Your task to perform on an android device: Empty the shopping cart on target.com. Add rayovac triple a to the cart on target.com, then select checkout. Image 0: 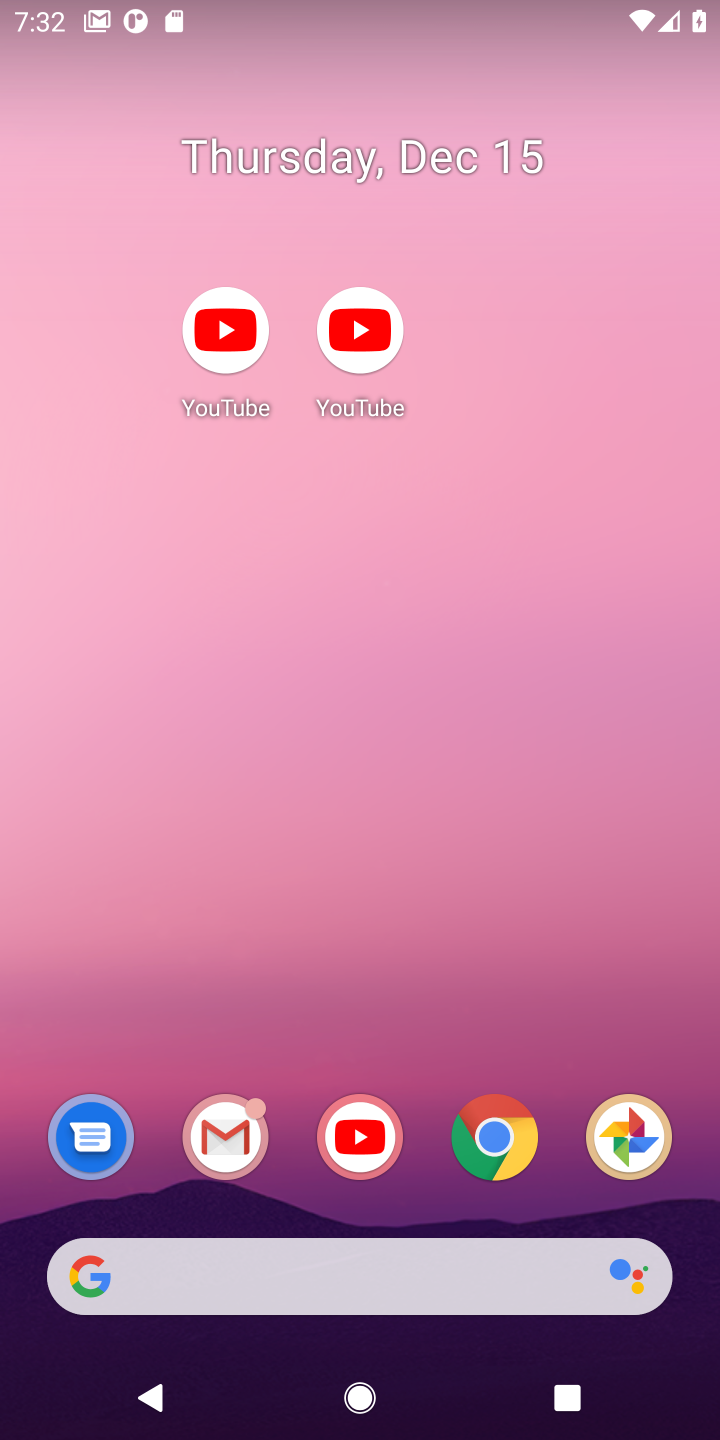
Step 0: drag from (332, 809) to (332, 357)
Your task to perform on an android device: Empty the shopping cart on target.com. Add rayovac triple a to the cart on target.com, then select checkout. Image 1: 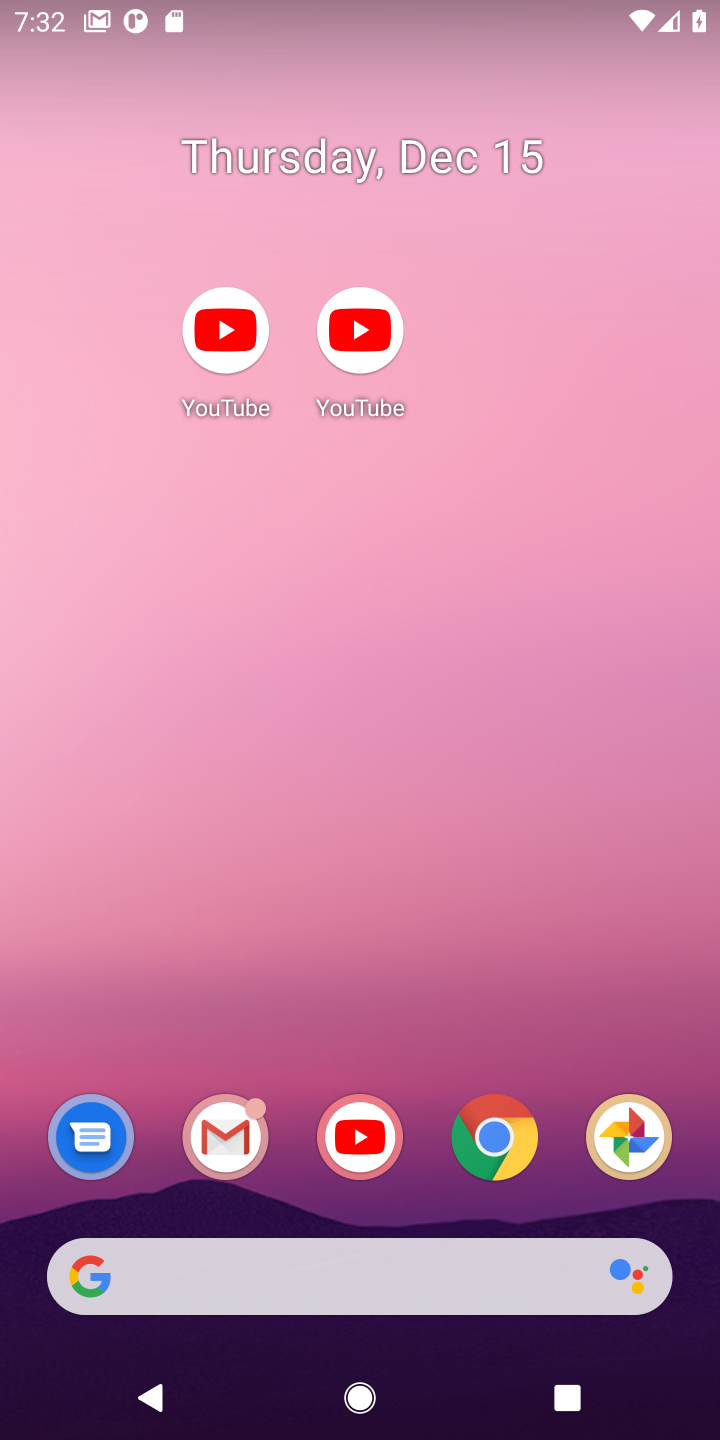
Step 1: drag from (303, 991) to (340, 294)
Your task to perform on an android device: Empty the shopping cart on target.com. Add rayovac triple a to the cart on target.com, then select checkout. Image 2: 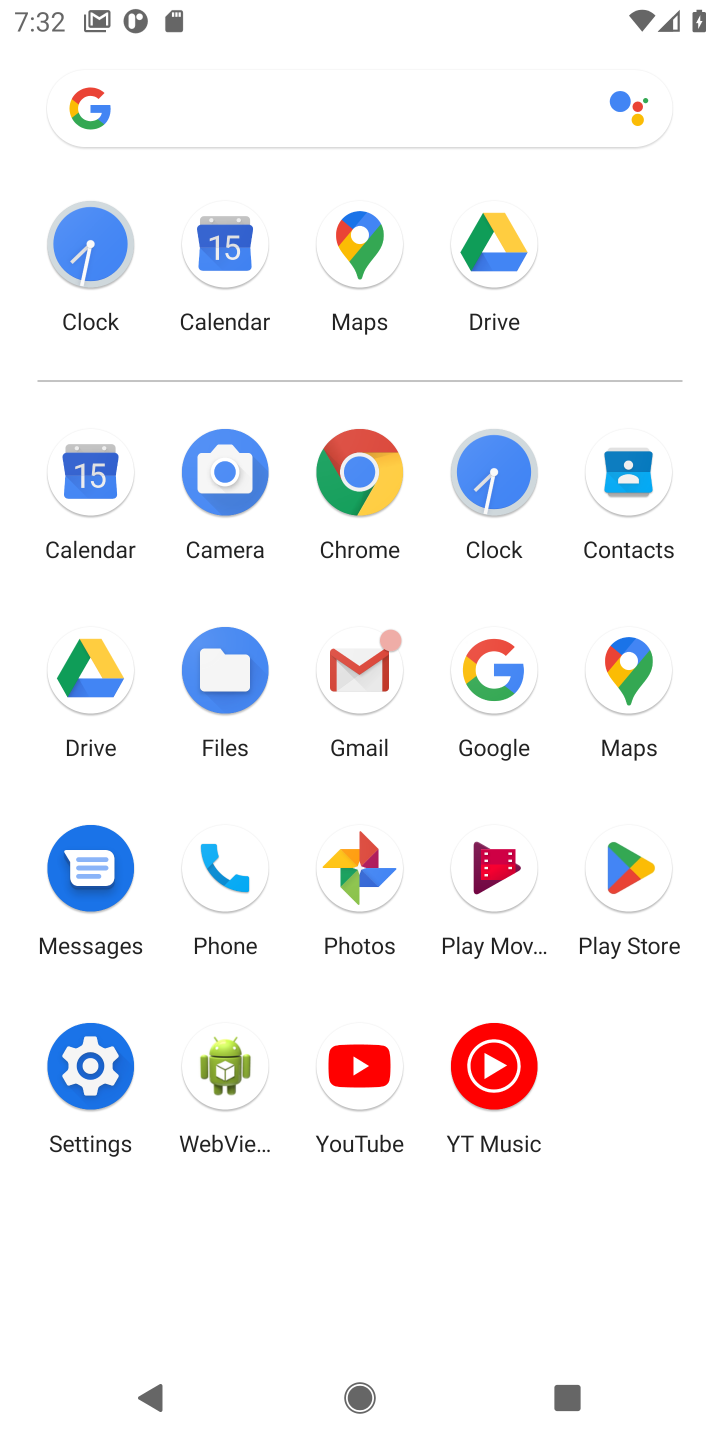
Step 2: click (479, 656)
Your task to perform on an android device: Empty the shopping cart on target.com. Add rayovac triple a to the cart on target.com, then select checkout. Image 3: 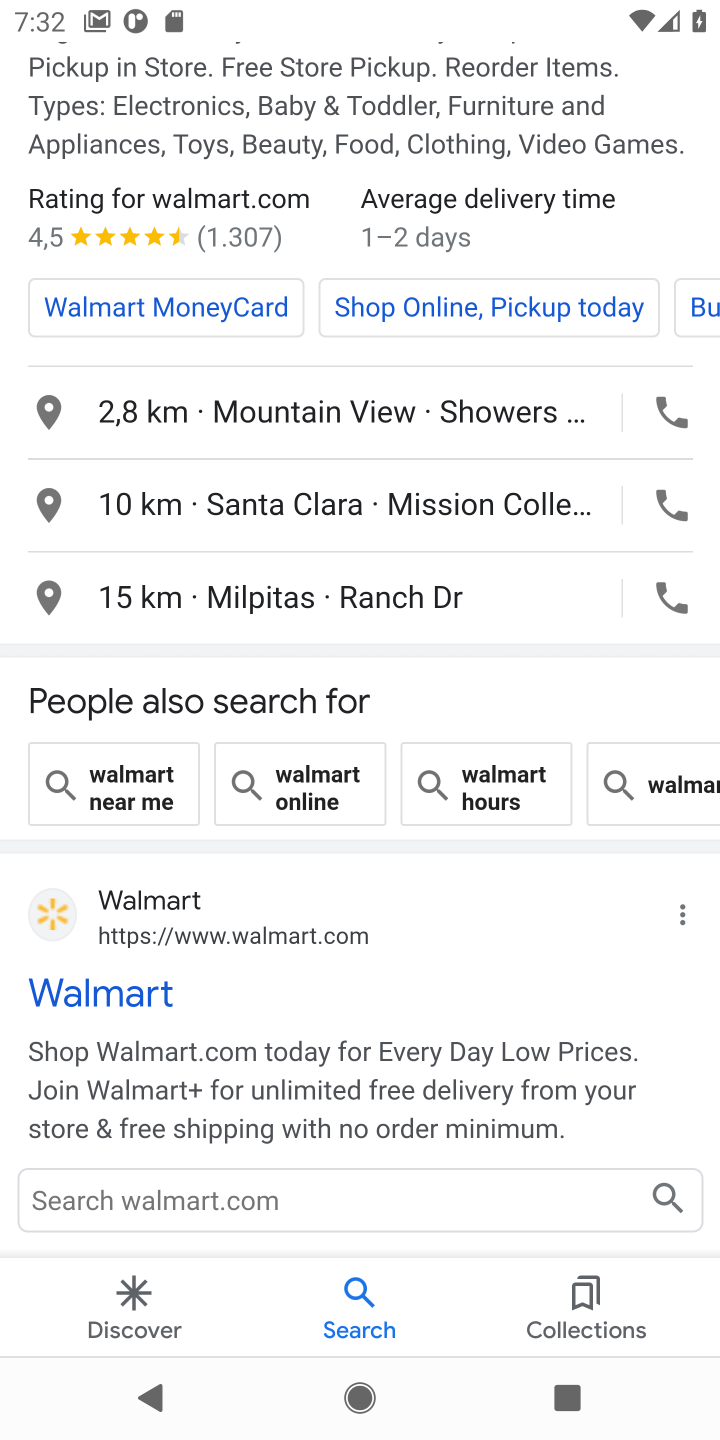
Step 3: drag from (308, 256) to (391, 990)
Your task to perform on an android device: Empty the shopping cart on target.com. Add rayovac triple a to the cart on target.com, then select checkout. Image 4: 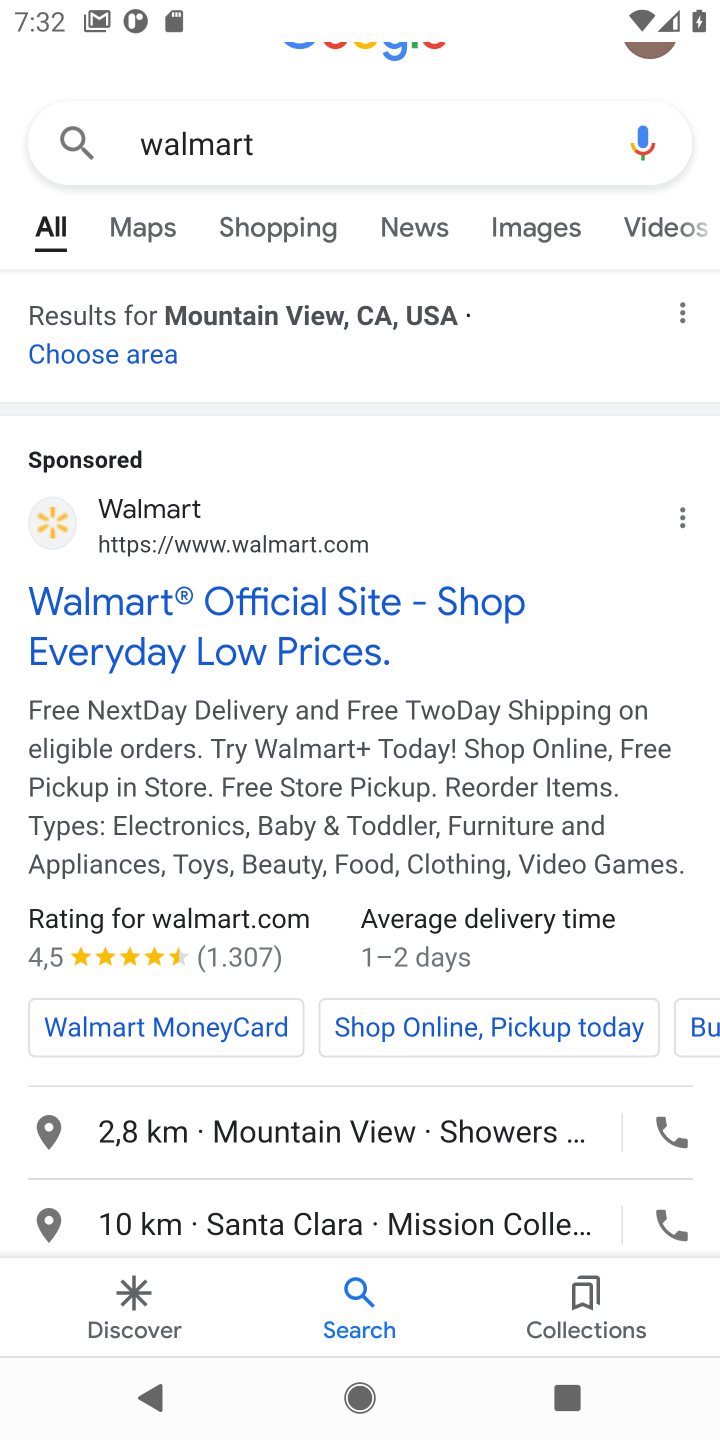
Step 4: click (204, 145)
Your task to perform on an android device: Empty the shopping cart on target.com. Add rayovac triple a to the cart on target.com, then select checkout. Image 5: 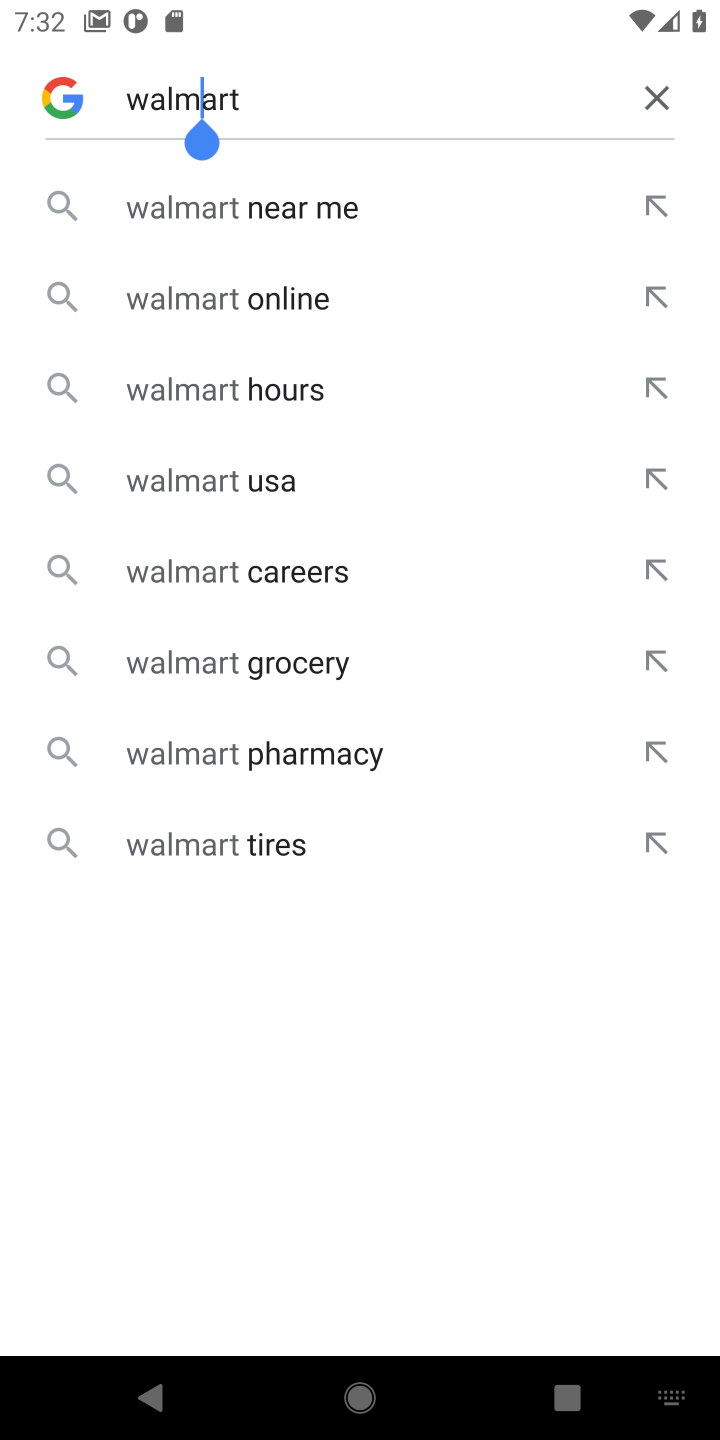
Step 5: click (661, 104)
Your task to perform on an android device: Empty the shopping cart on target.com. Add rayovac triple a to the cart on target.com, then select checkout. Image 6: 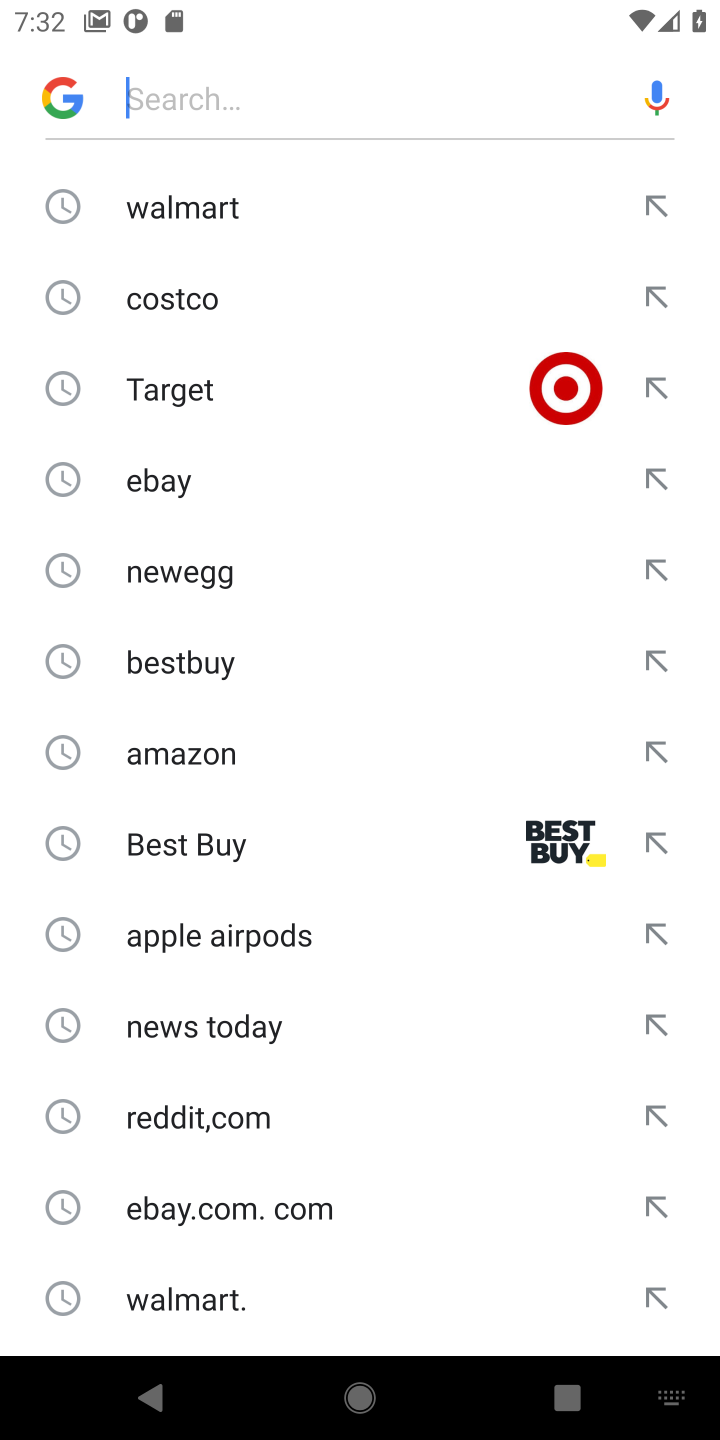
Step 6: click (188, 389)
Your task to perform on an android device: Empty the shopping cart on target.com. Add rayovac triple a to the cart on target.com, then select checkout. Image 7: 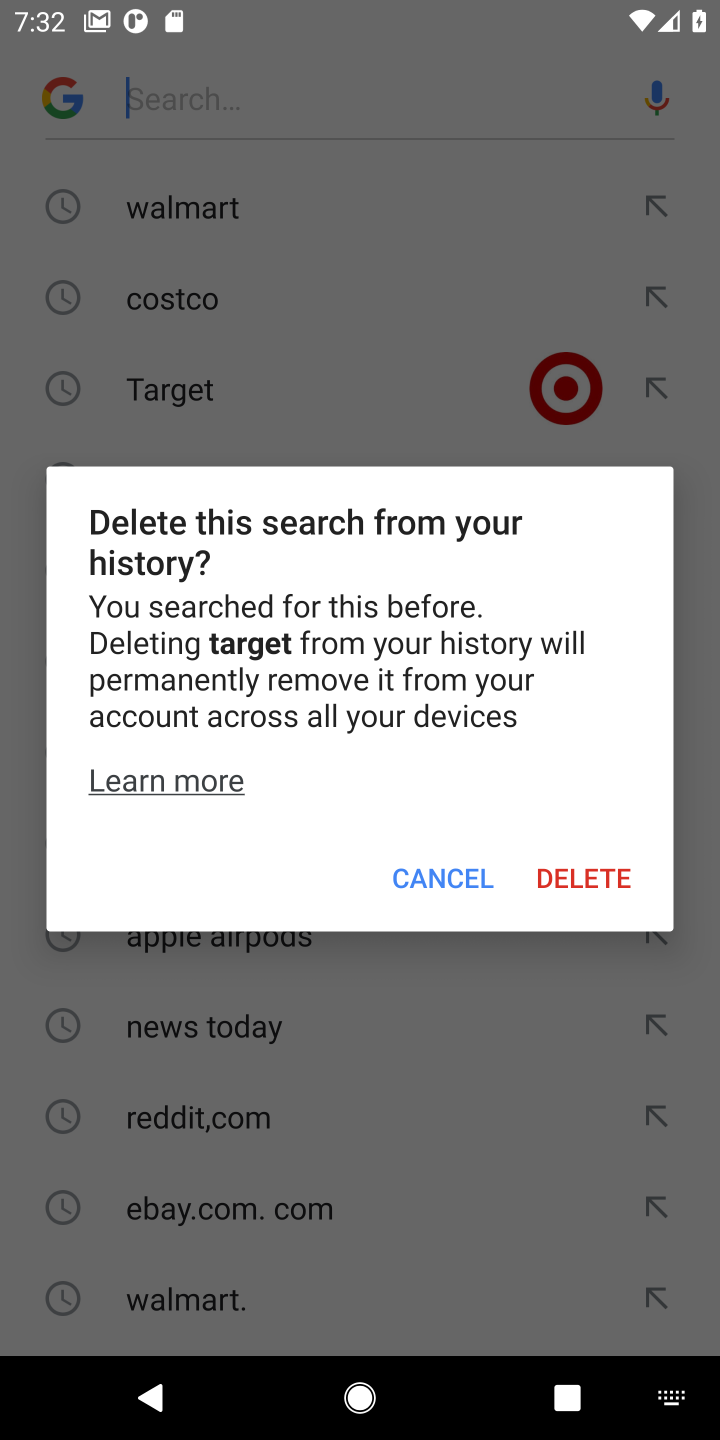
Step 7: click (439, 892)
Your task to perform on an android device: Empty the shopping cart on target.com. Add rayovac triple a to the cart on target.com, then select checkout. Image 8: 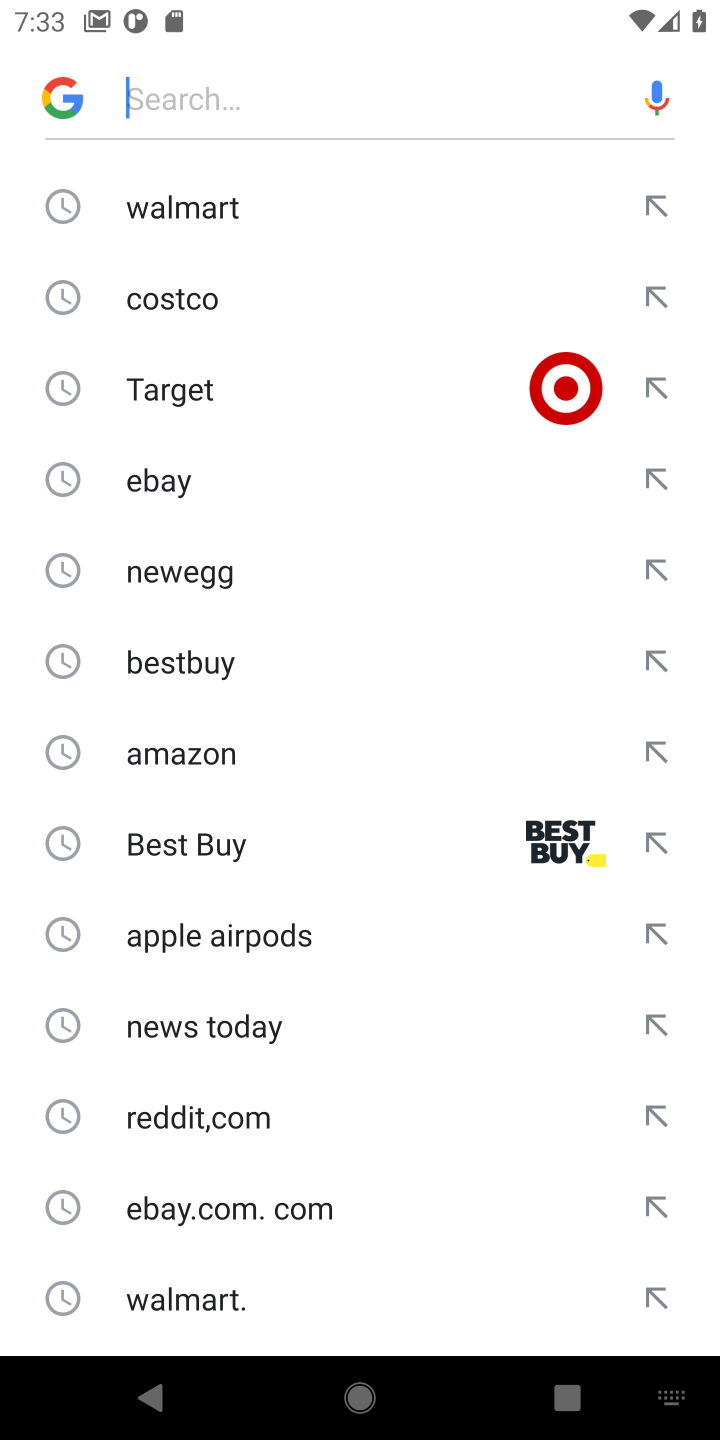
Step 8: click (589, 397)
Your task to perform on an android device: Empty the shopping cart on target.com. Add rayovac triple a to the cart on target.com, then select checkout. Image 9: 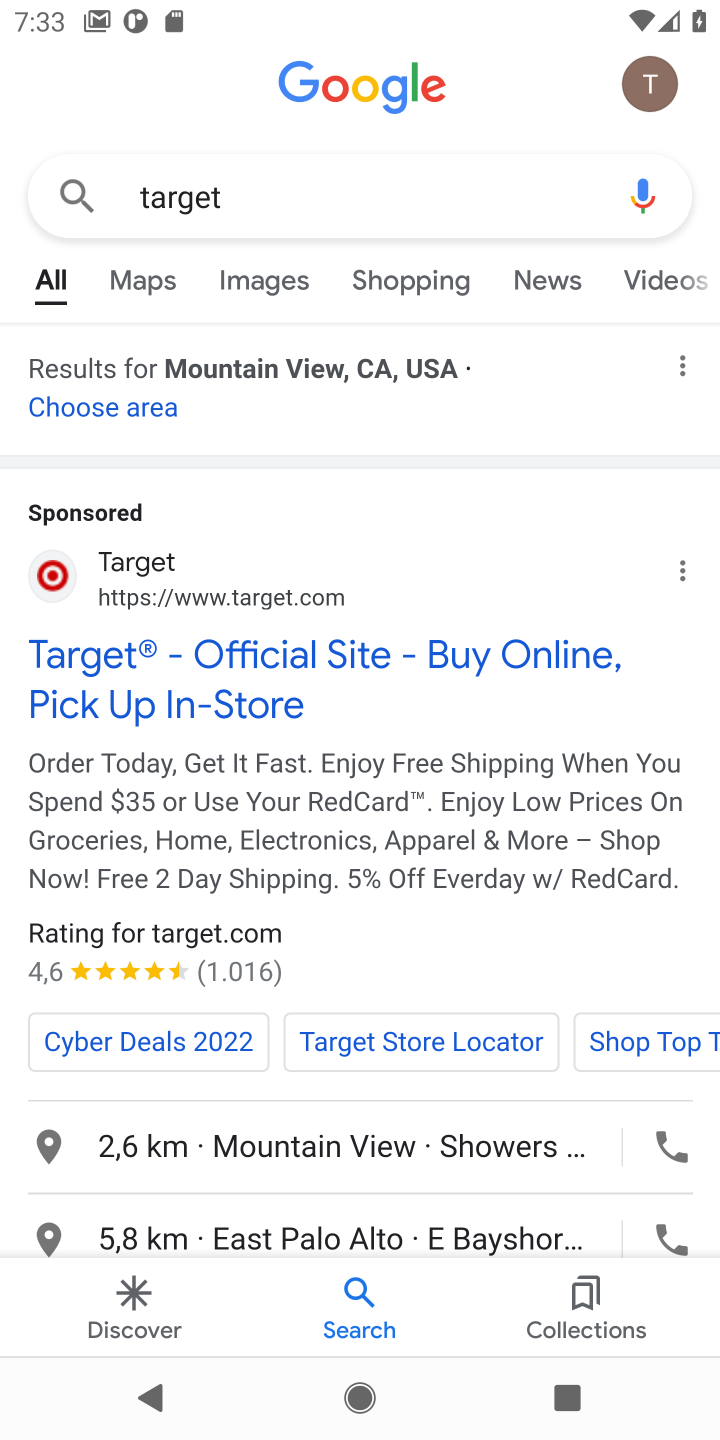
Step 9: click (165, 688)
Your task to perform on an android device: Empty the shopping cart on target.com. Add rayovac triple a to the cart on target.com, then select checkout. Image 10: 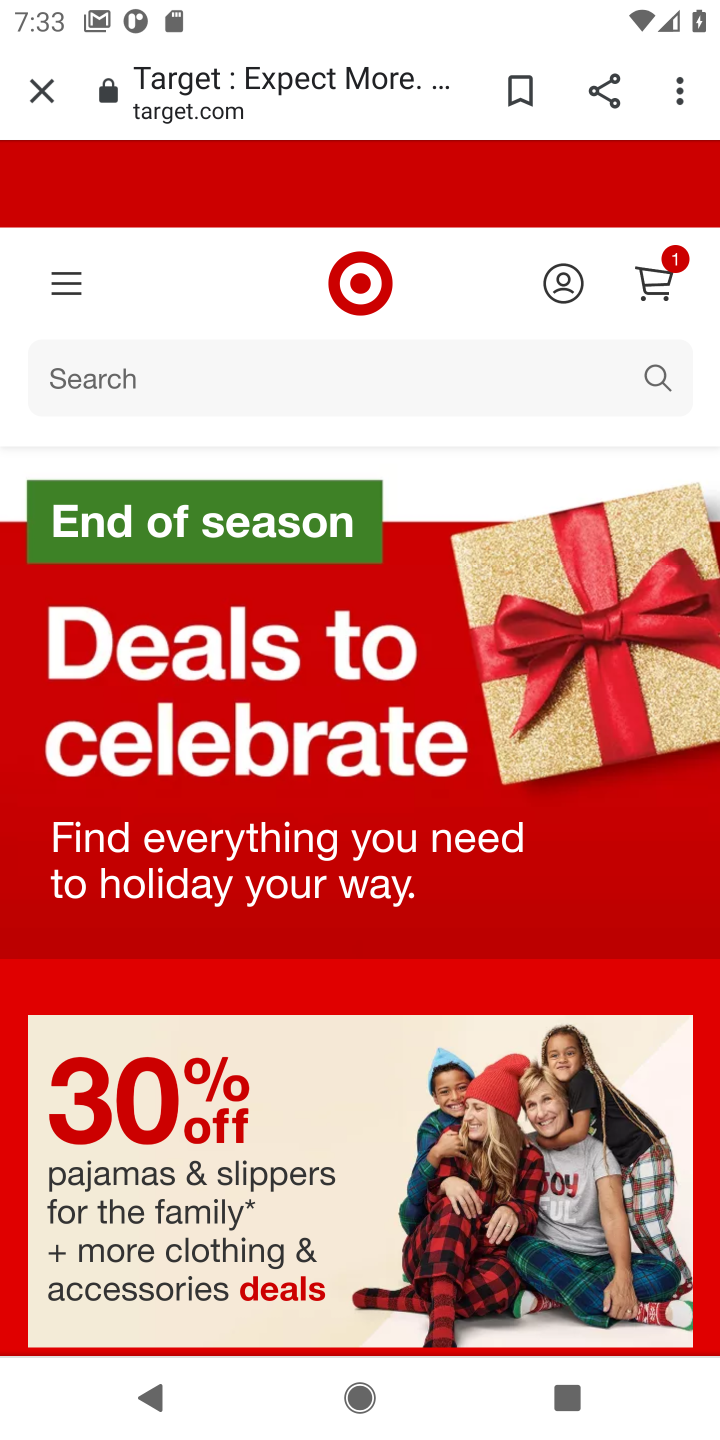
Step 10: click (202, 365)
Your task to perform on an android device: Empty the shopping cart on target.com. Add rayovac triple a to the cart on target.com, then select checkout. Image 11: 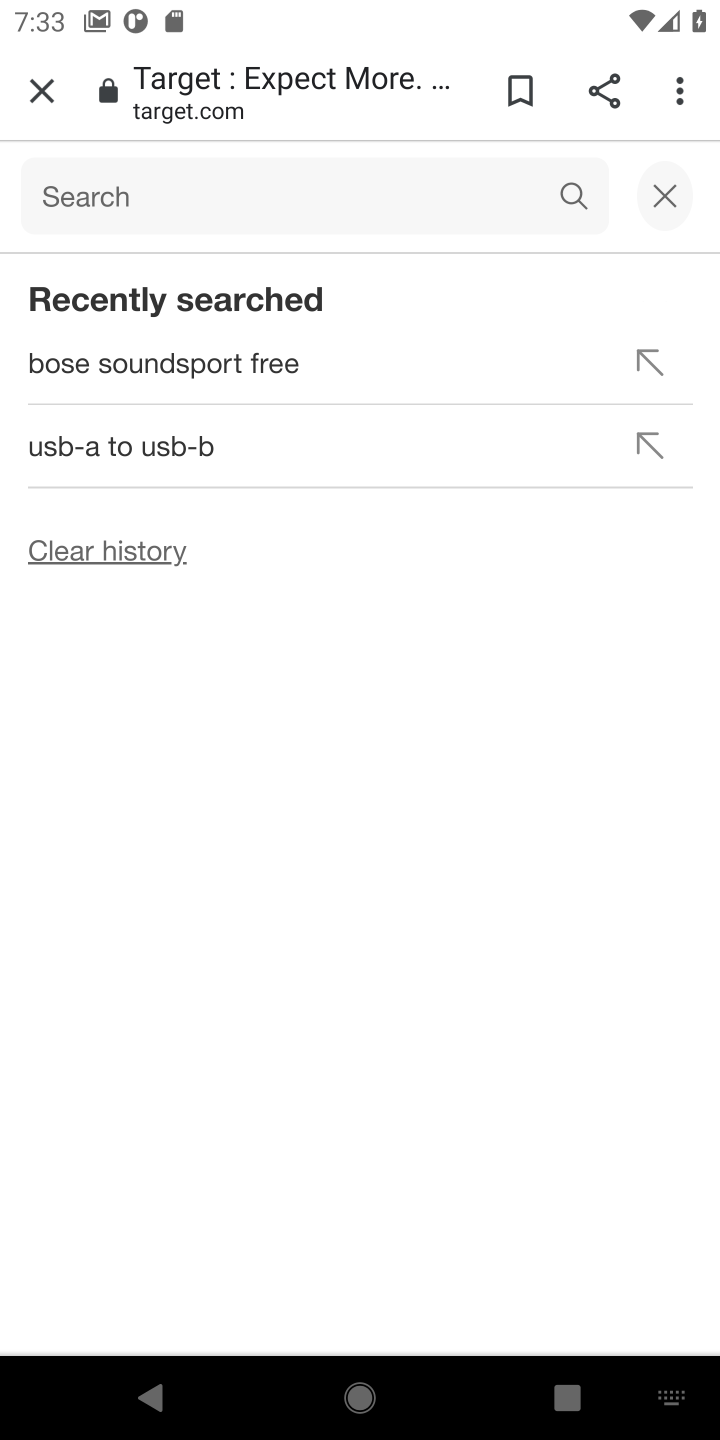
Step 11: type "rayovac triple a"
Your task to perform on an android device: Empty the shopping cart on target.com. Add rayovac triple a to the cart on target.com, then select checkout. Image 12: 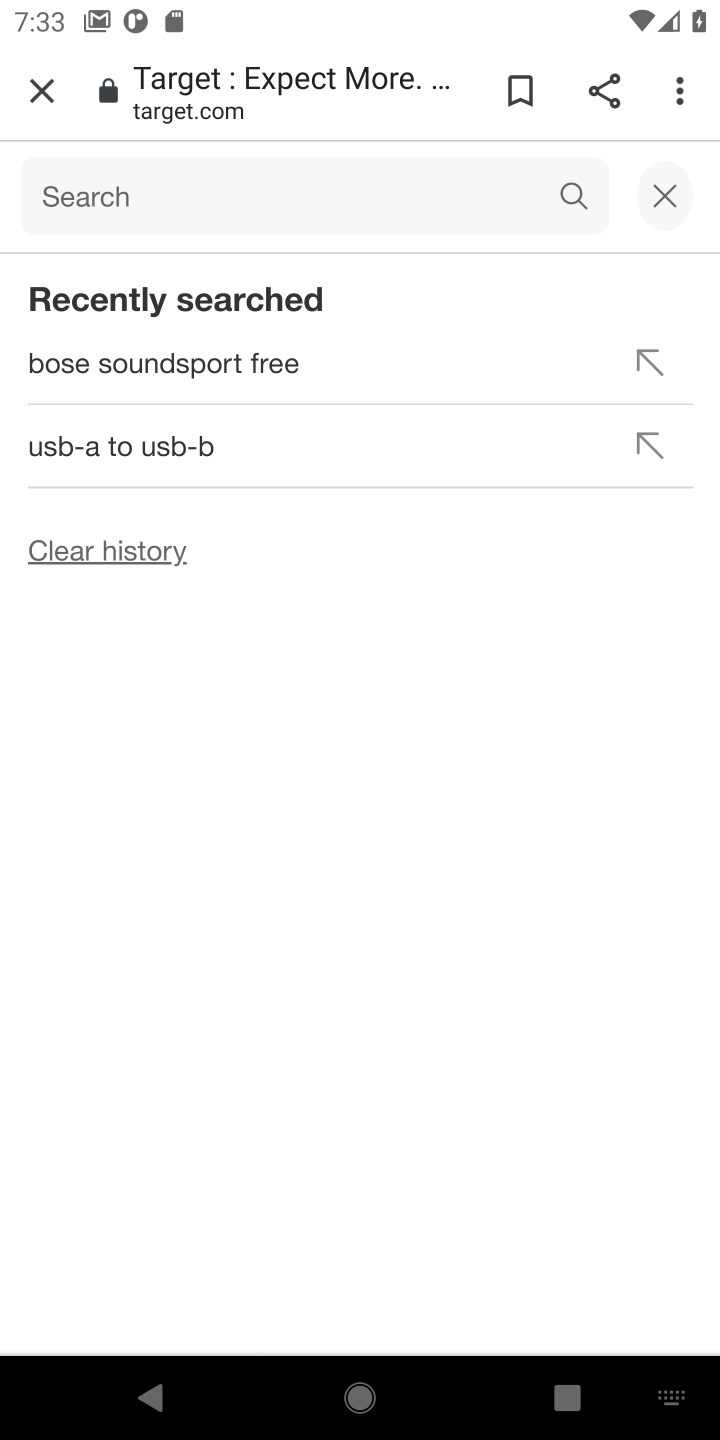
Step 12: click (563, 194)
Your task to perform on an android device: Empty the shopping cart on target.com. Add rayovac triple a to the cart on target.com, then select checkout. Image 13: 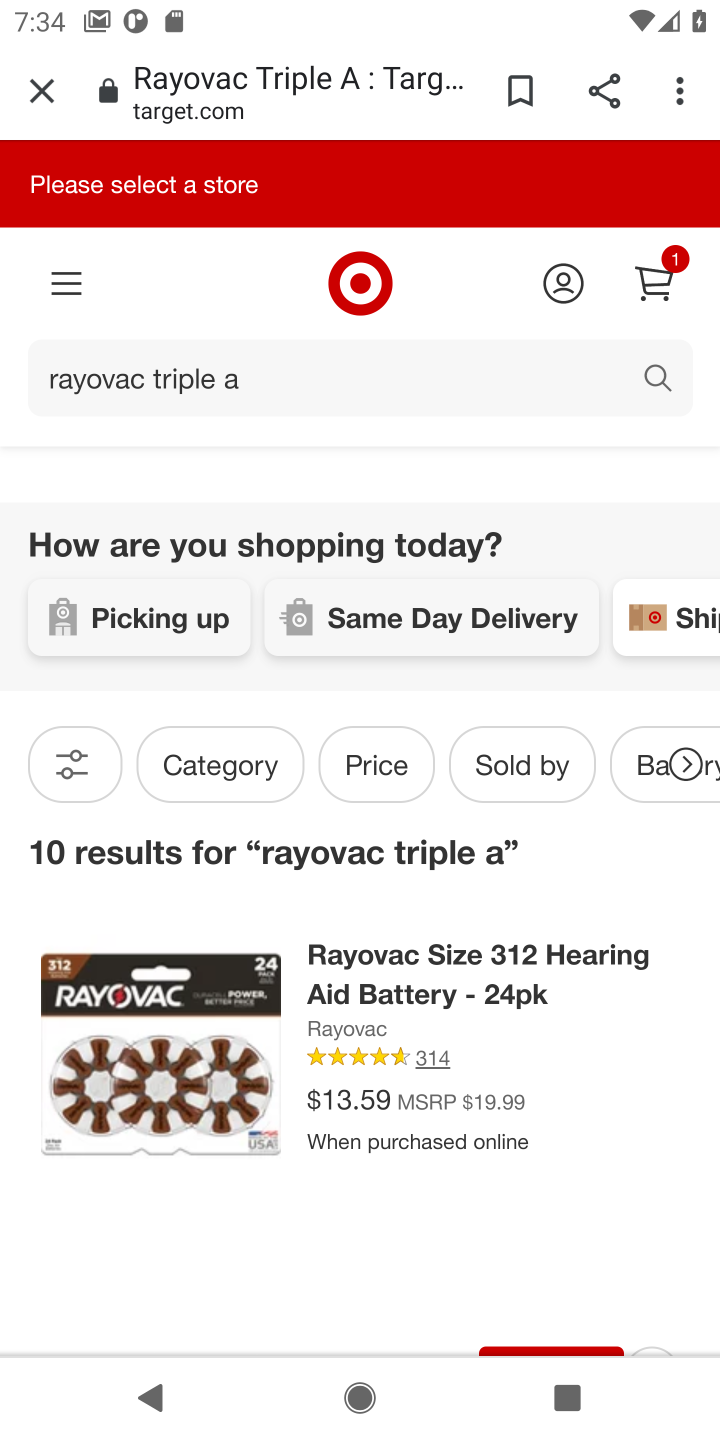
Step 13: drag from (414, 1078) to (448, 622)
Your task to perform on an android device: Empty the shopping cart on target.com. Add rayovac triple a to the cart on target.com, then select checkout. Image 14: 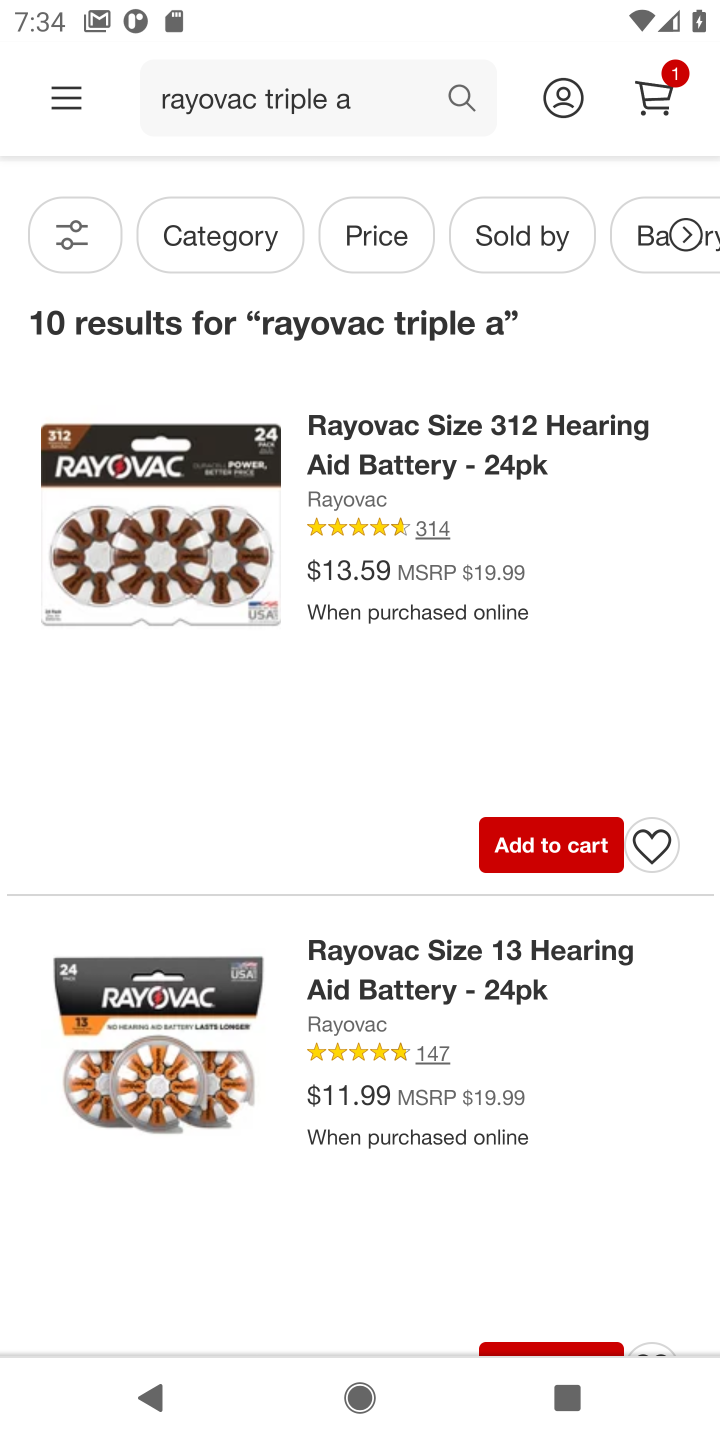
Step 14: click (546, 847)
Your task to perform on an android device: Empty the shopping cart on target.com. Add rayovac triple a to the cart on target.com, then select checkout. Image 15: 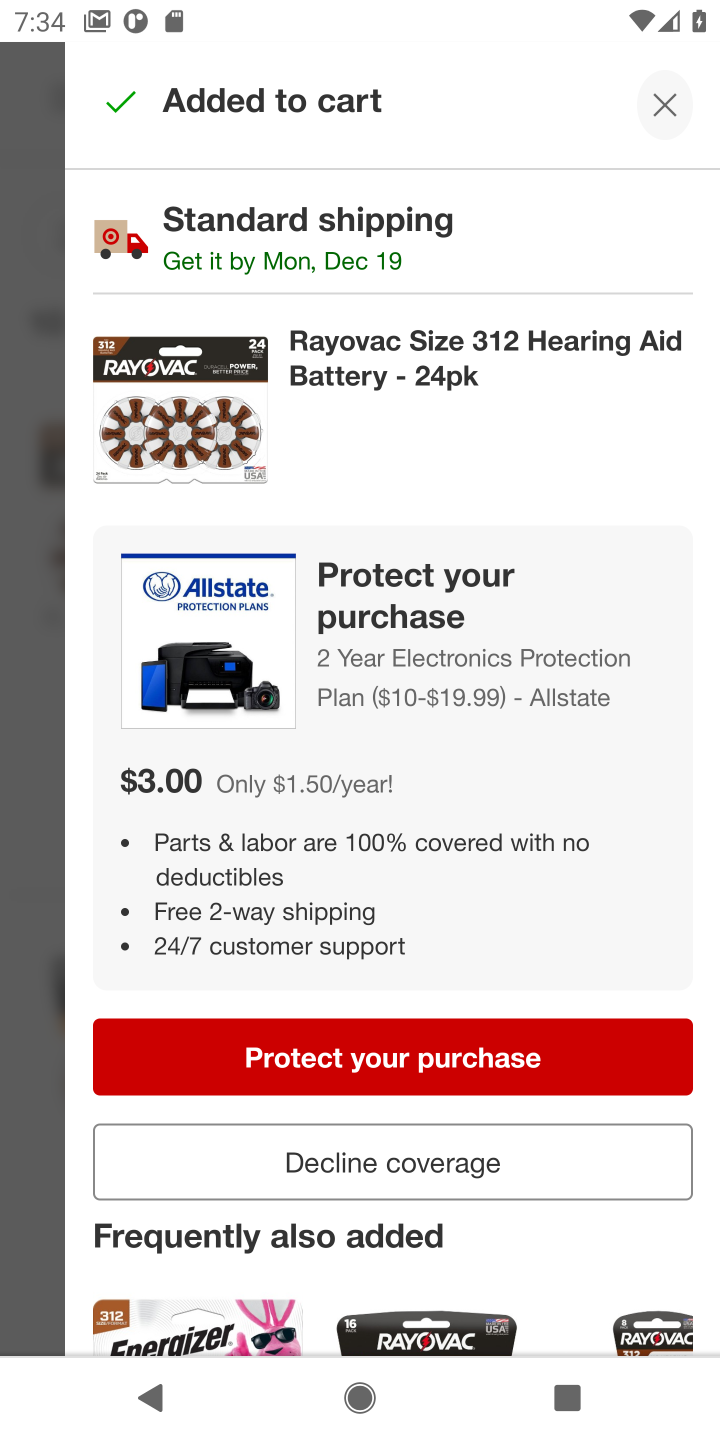
Step 15: click (659, 109)
Your task to perform on an android device: Empty the shopping cart on target.com. Add rayovac triple a to the cart on target.com, then select checkout. Image 16: 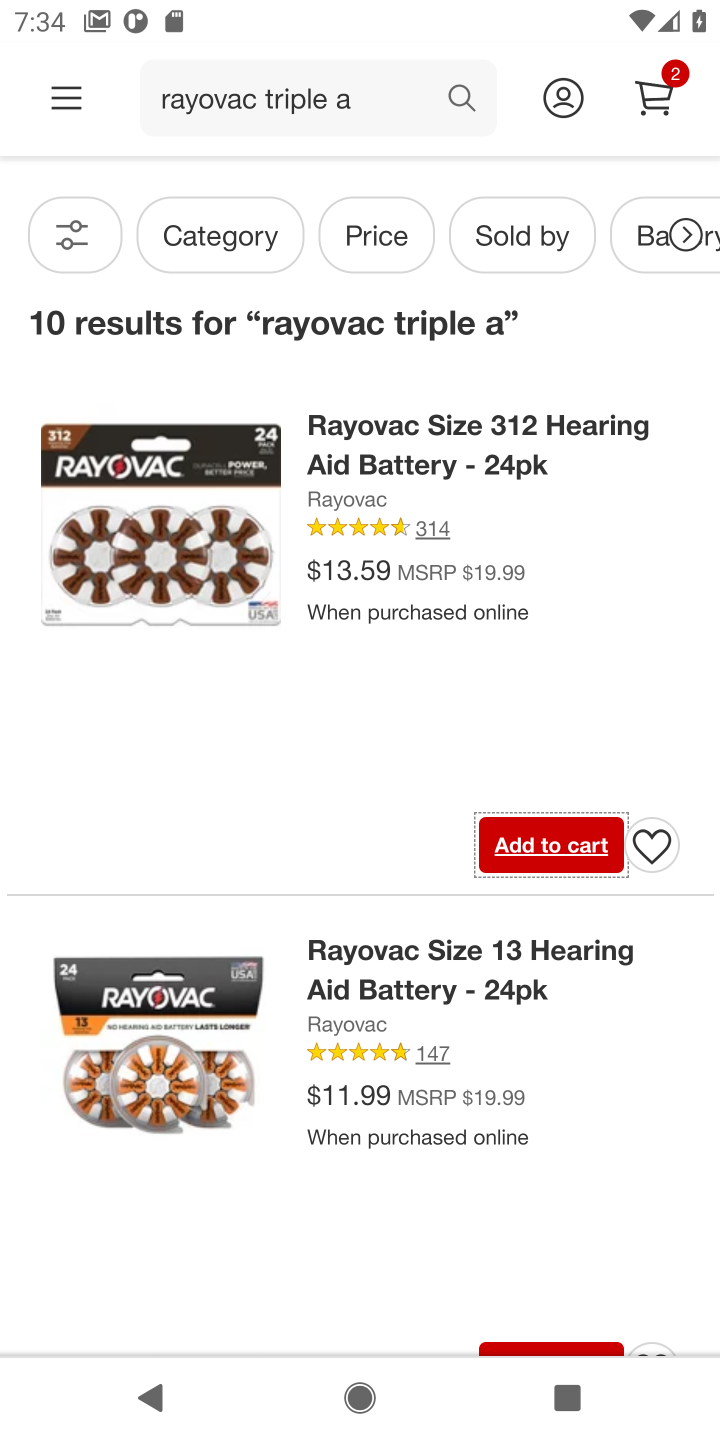
Step 16: click (651, 69)
Your task to perform on an android device: Empty the shopping cart on target.com. Add rayovac triple a to the cart on target.com, then select checkout. Image 17: 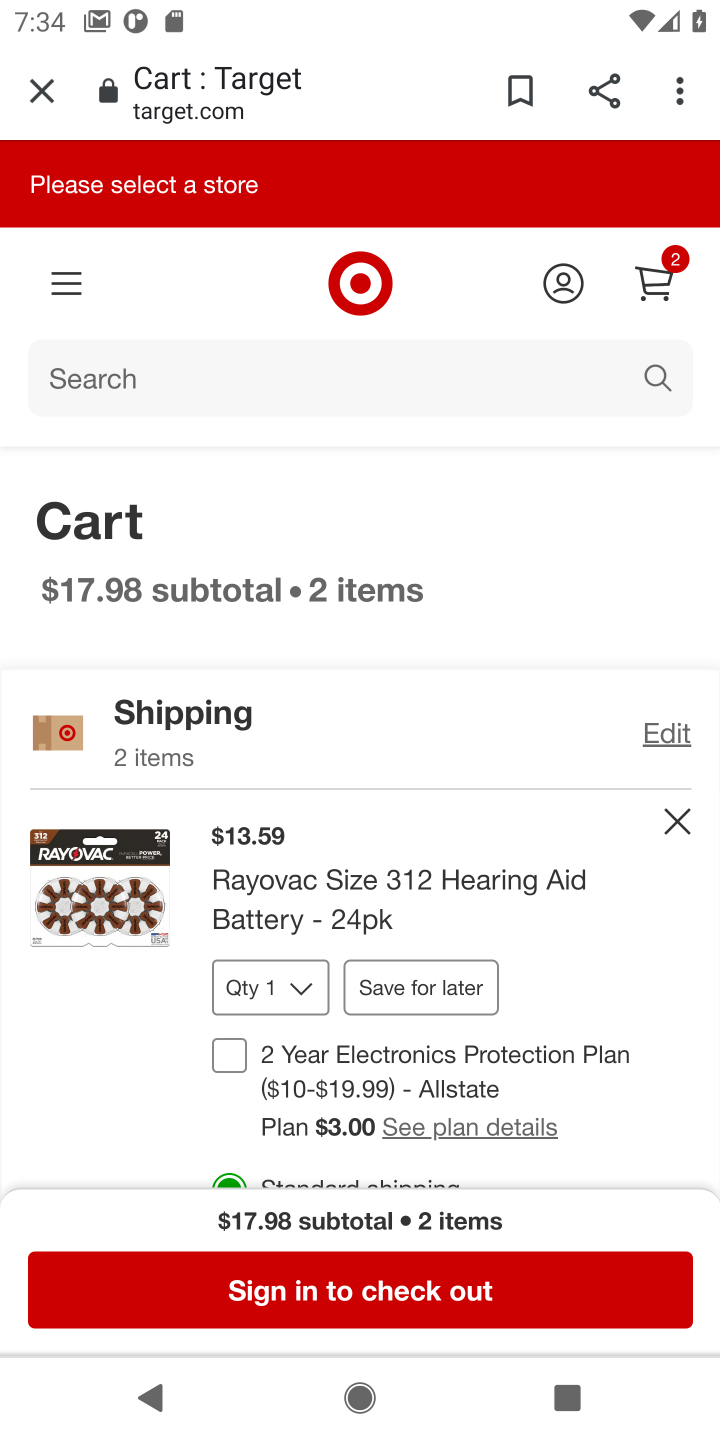
Step 17: click (422, 1303)
Your task to perform on an android device: Empty the shopping cart on target.com. Add rayovac triple a to the cart on target.com, then select checkout. Image 18: 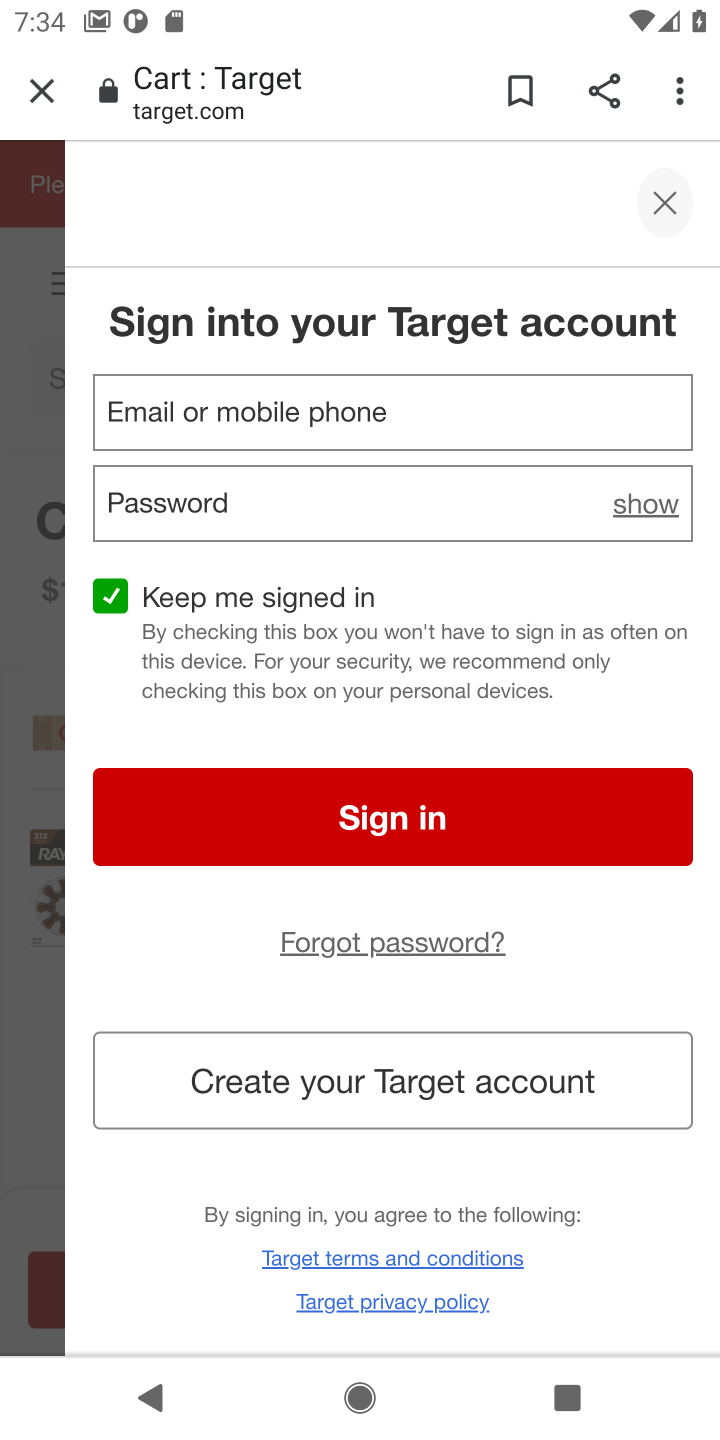
Step 18: task complete